Your task to perform on an android device: Go to Yahoo.com Image 0: 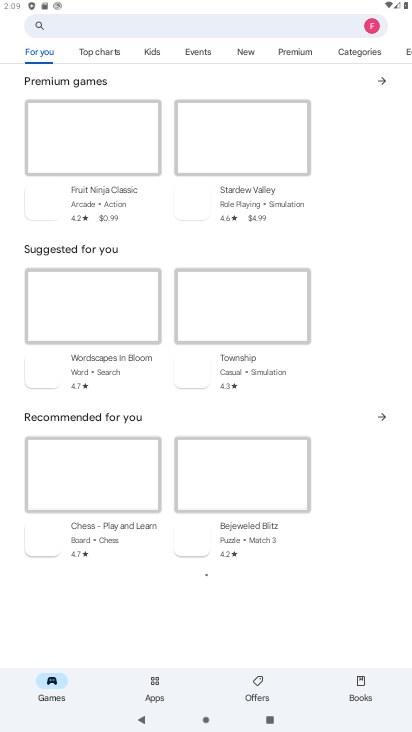
Step 0: press home button
Your task to perform on an android device: Go to Yahoo.com Image 1: 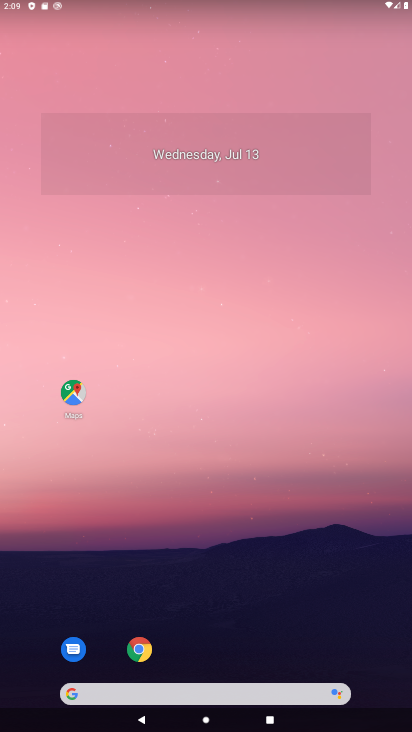
Step 1: click (141, 655)
Your task to perform on an android device: Go to Yahoo.com Image 2: 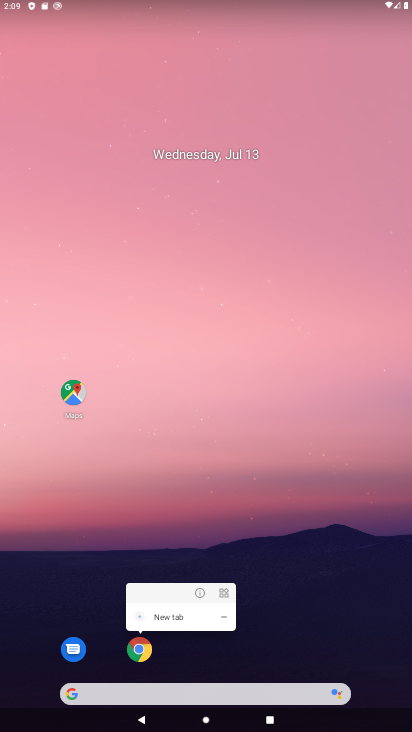
Step 2: click (141, 655)
Your task to perform on an android device: Go to Yahoo.com Image 3: 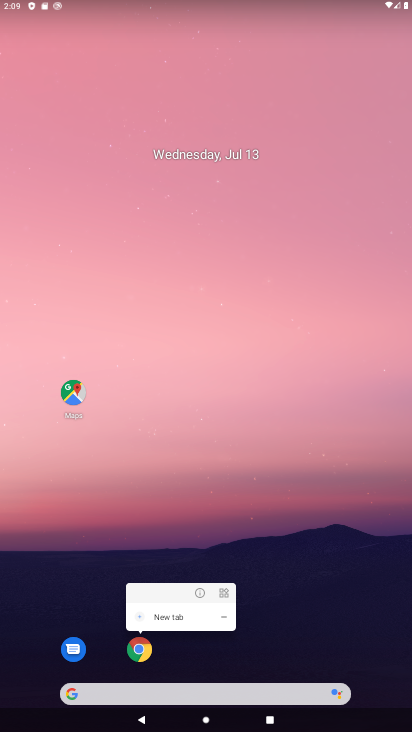
Step 3: click (141, 655)
Your task to perform on an android device: Go to Yahoo.com Image 4: 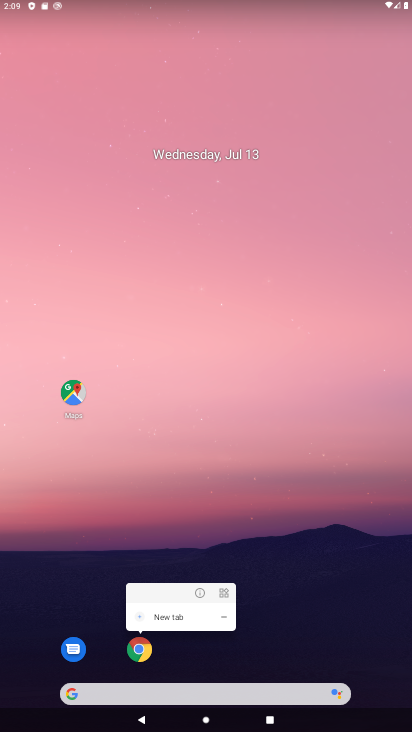
Step 4: click (136, 651)
Your task to perform on an android device: Go to Yahoo.com Image 5: 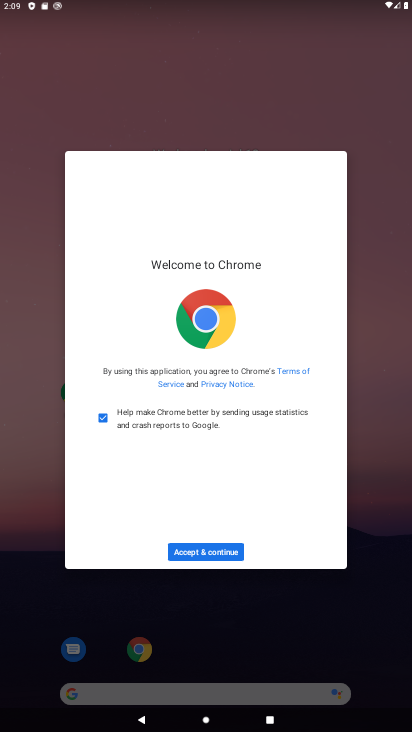
Step 5: click (195, 541)
Your task to perform on an android device: Go to Yahoo.com Image 6: 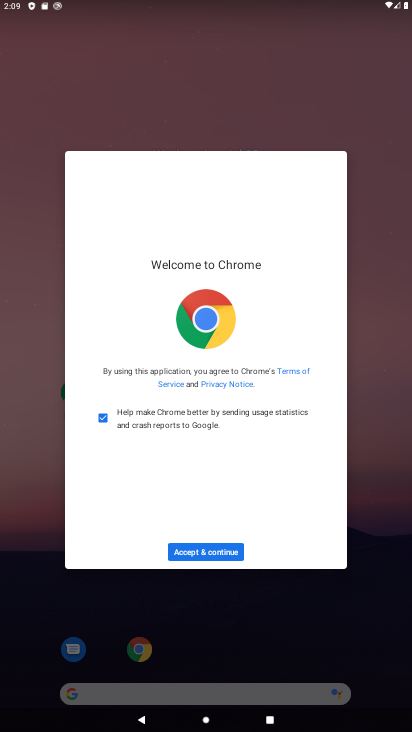
Step 6: click (202, 551)
Your task to perform on an android device: Go to Yahoo.com Image 7: 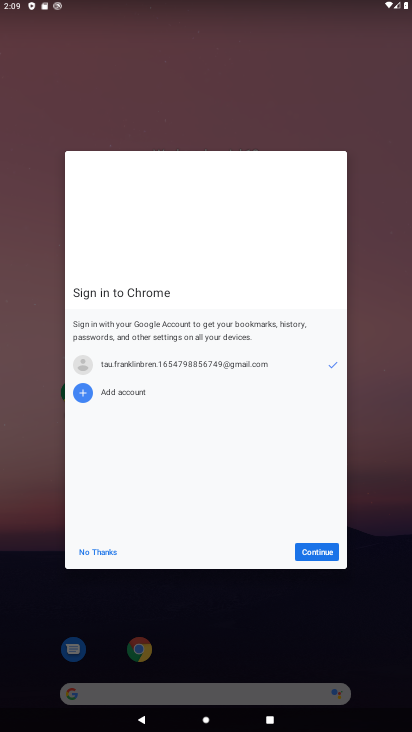
Step 7: click (299, 551)
Your task to perform on an android device: Go to Yahoo.com Image 8: 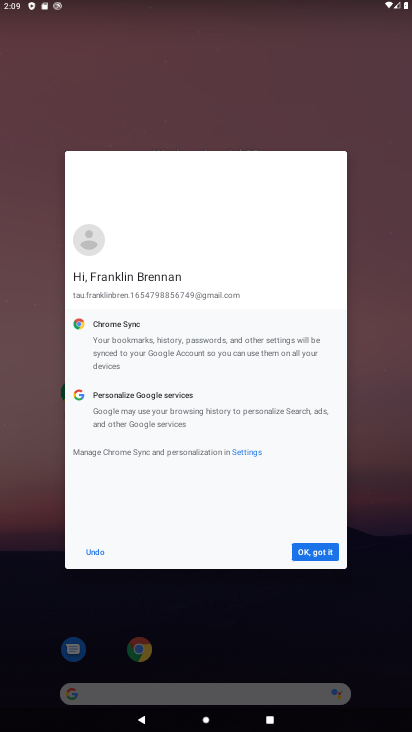
Step 8: click (304, 553)
Your task to perform on an android device: Go to Yahoo.com Image 9: 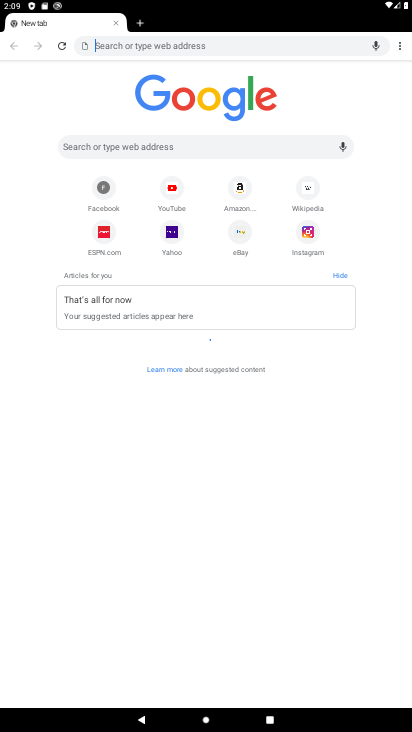
Step 9: click (179, 225)
Your task to perform on an android device: Go to Yahoo.com Image 10: 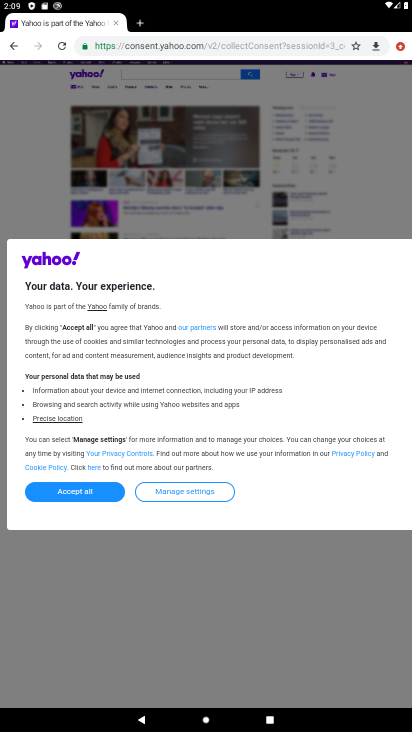
Step 10: click (70, 497)
Your task to perform on an android device: Go to Yahoo.com Image 11: 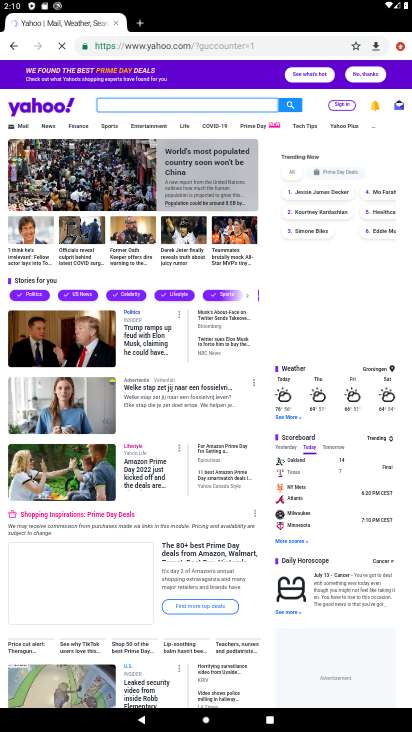
Step 11: task complete